Your task to perform on an android device: toggle notifications settings in the gmail app Image 0: 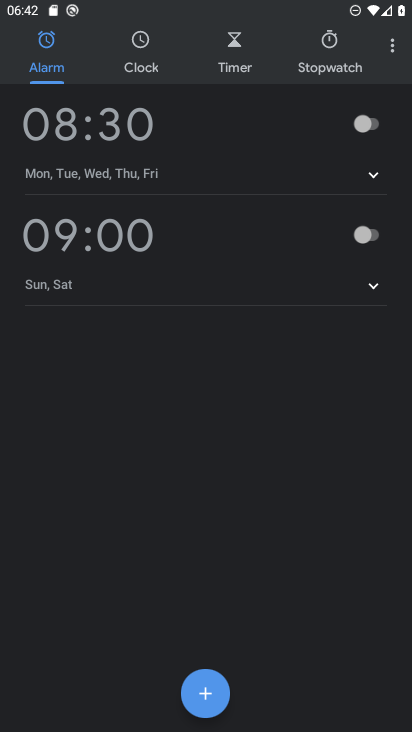
Step 0: press home button
Your task to perform on an android device: toggle notifications settings in the gmail app Image 1: 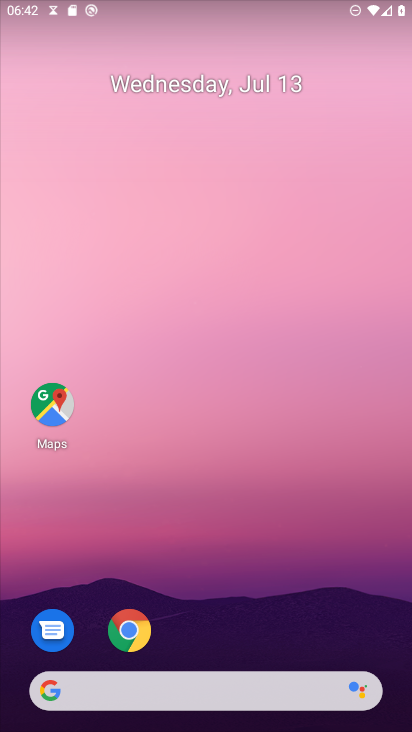
Step 1: drag from (193, 708) to (291, 45)
Your task to perform on an android device: toggle notifications settings in the gmail app Image 2: 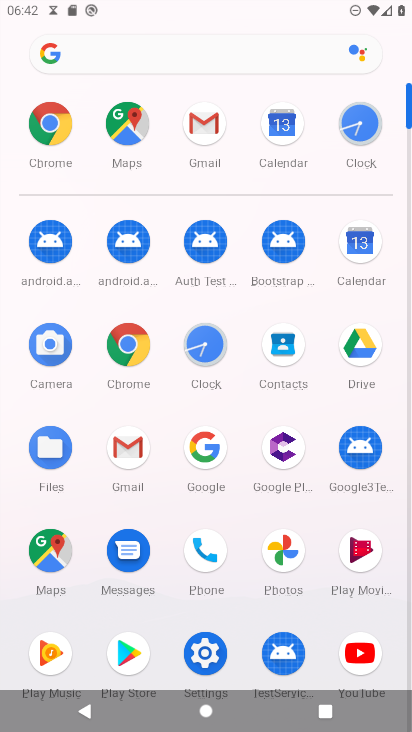
Step 2: click (133, 447)
Your task to perform on an android device: toggle notifications settings in the gmail app Image 3: 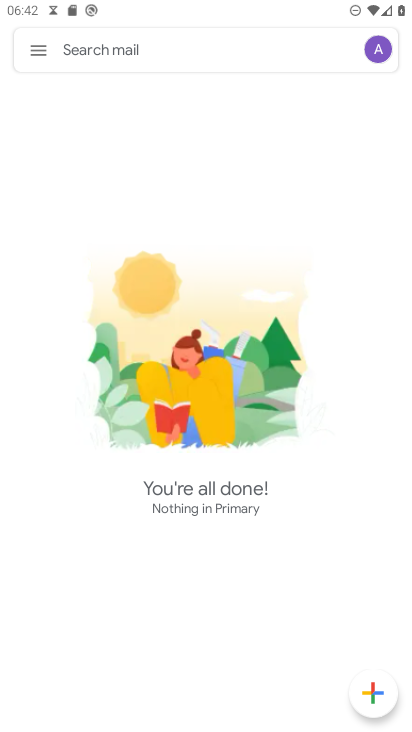
Step 3: click (48, 46)
Your task to perform on an android device: toggle notifications settings in the gmail app Image 4: 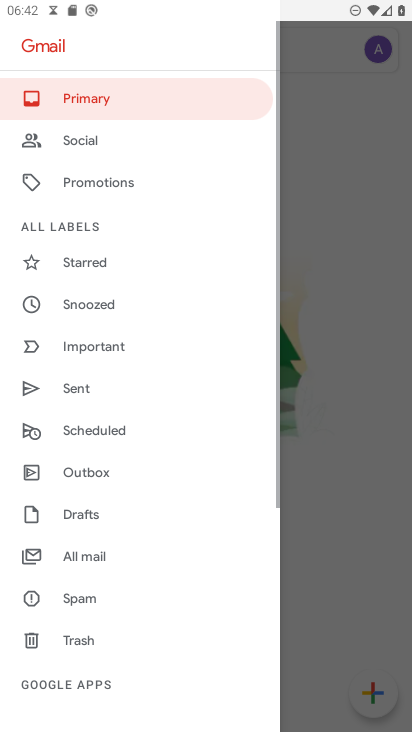
Step 4: drag from (107, 667) to (87, 228)
Your task to perform on an android device: toggle notifications settings in the gmail app Image 5: 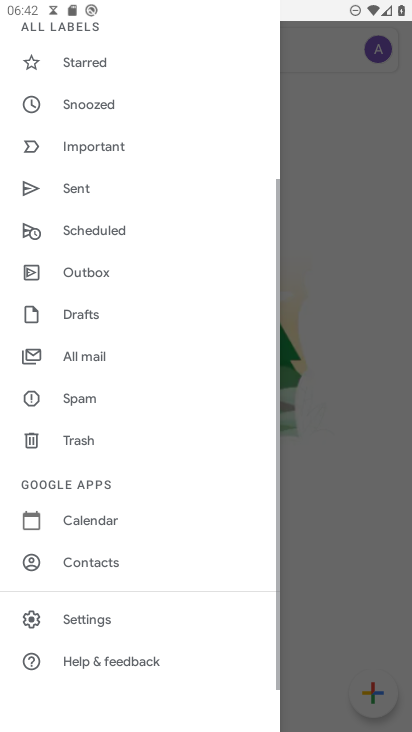
Step 5: click (102, 618)
Your task to perform on an android device: toggle notifications settings in the gmail app Image 6: 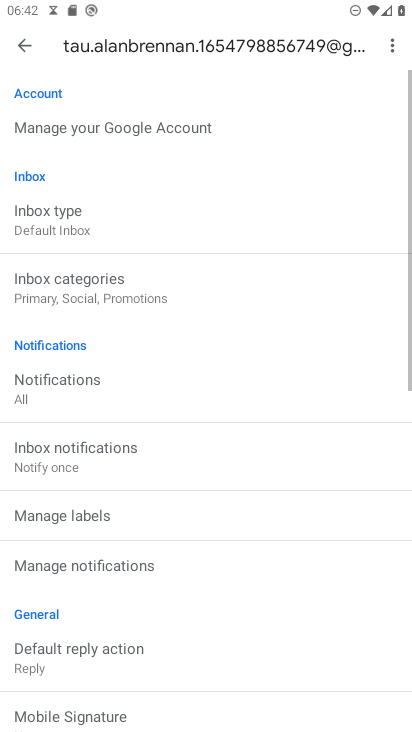
Step 6: click (176, 567)
Your task to perform on an android device: toggle notifications settings in the gmail app Image 7: 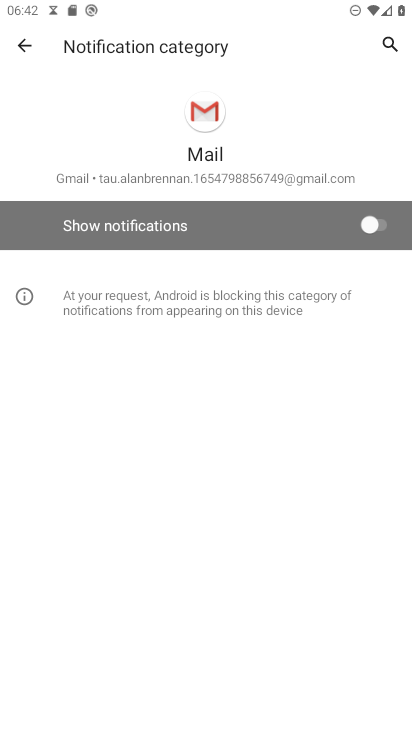
Step 7: click (380, 229)
Your task to perform on an android device: toggle notifications settings in the gmail app Image 8: 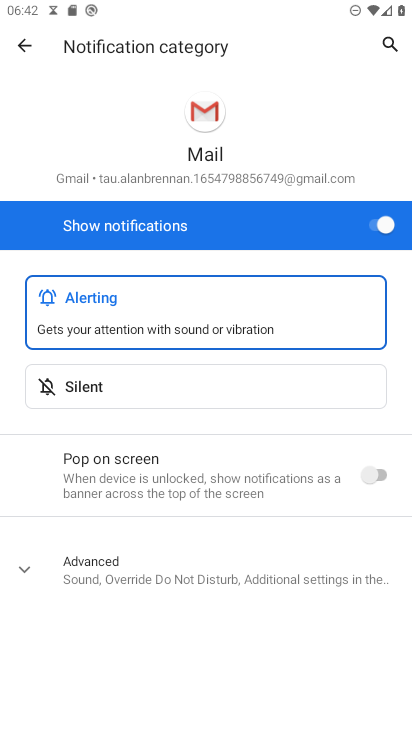
Step 8: task complete